Your task to perform on an android device: Turn on the flashlight Image 0: 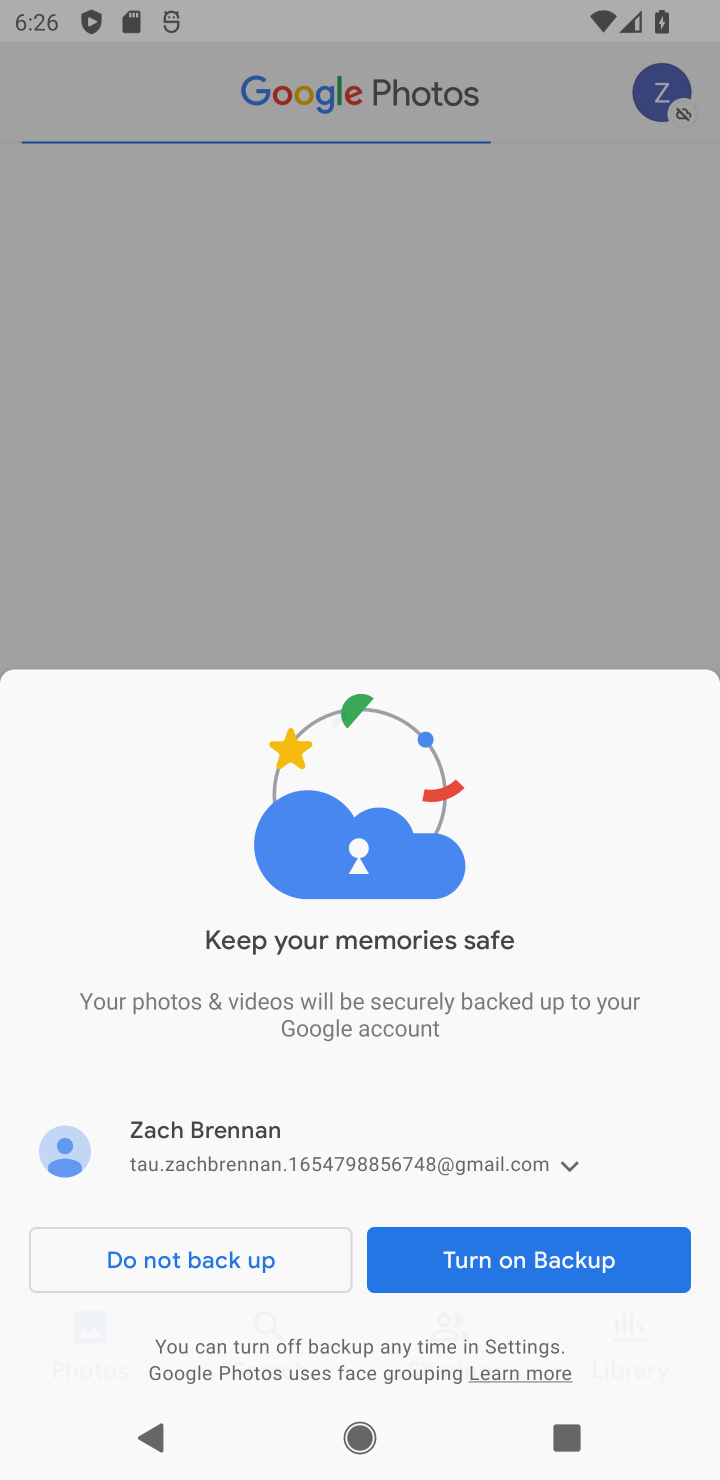
Step 0: press home button
Your task to perform on an android device: Turn on the flashlight Image 1: 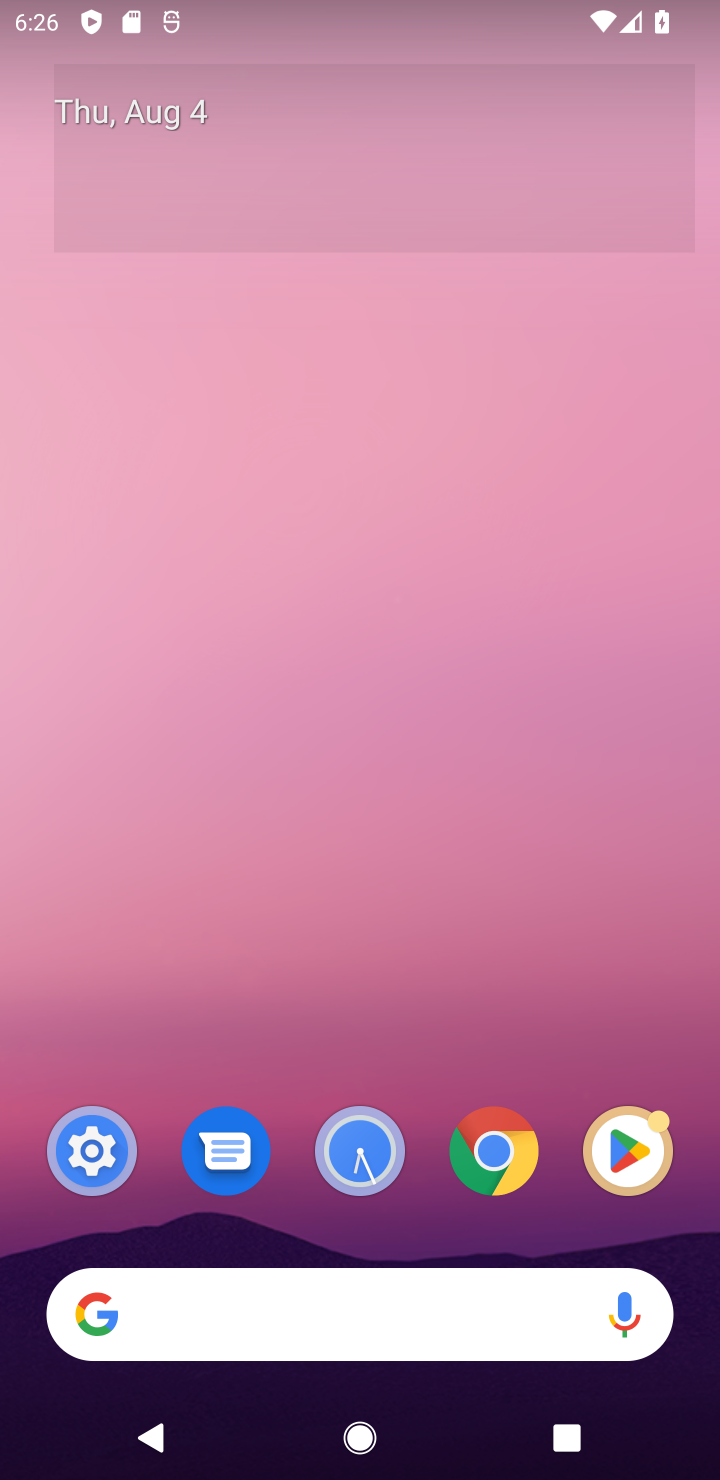
Step 1: drag from (327, 802) to (287, 26)
Your task to perform on an android device: Turn on the flashlight Image 2: 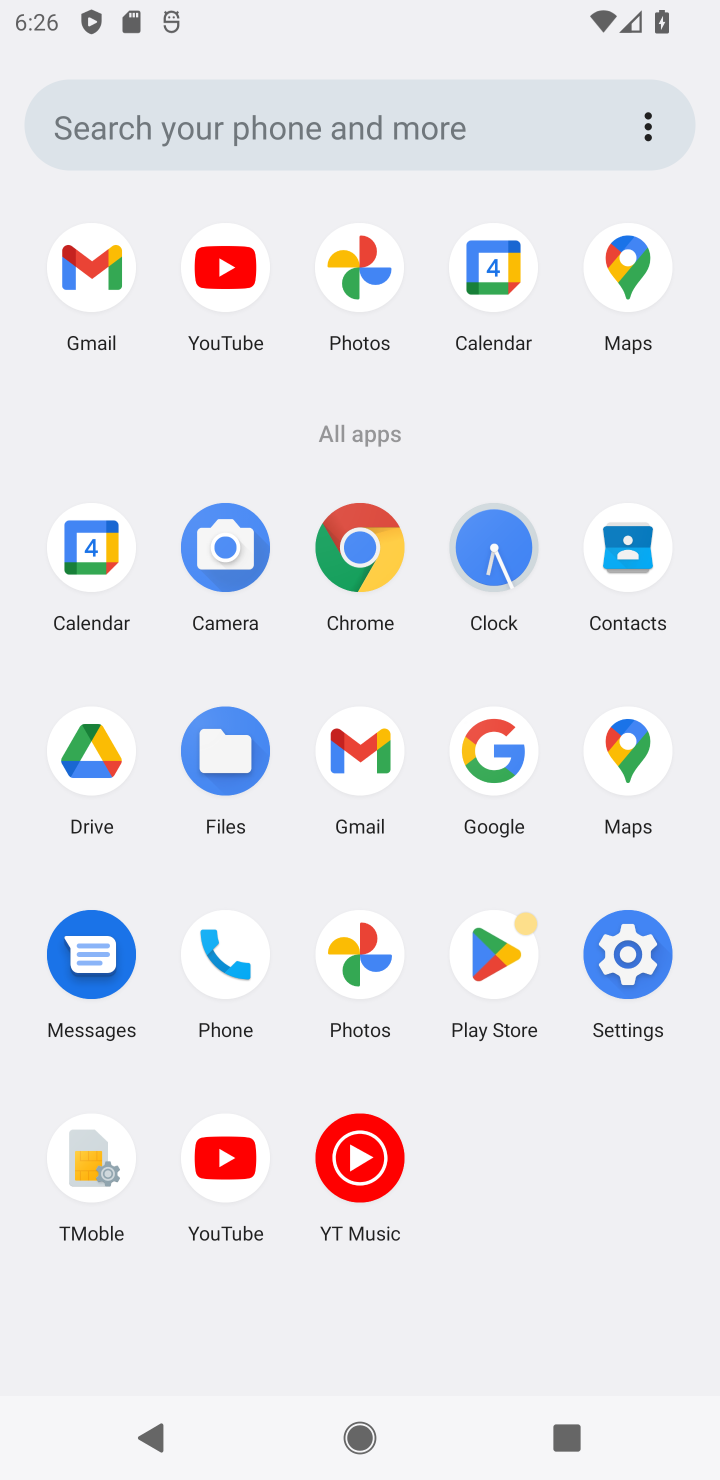
Step 2: click (610, 963)
Your task to perform on an android device: Turn on the flashlight Image 3: 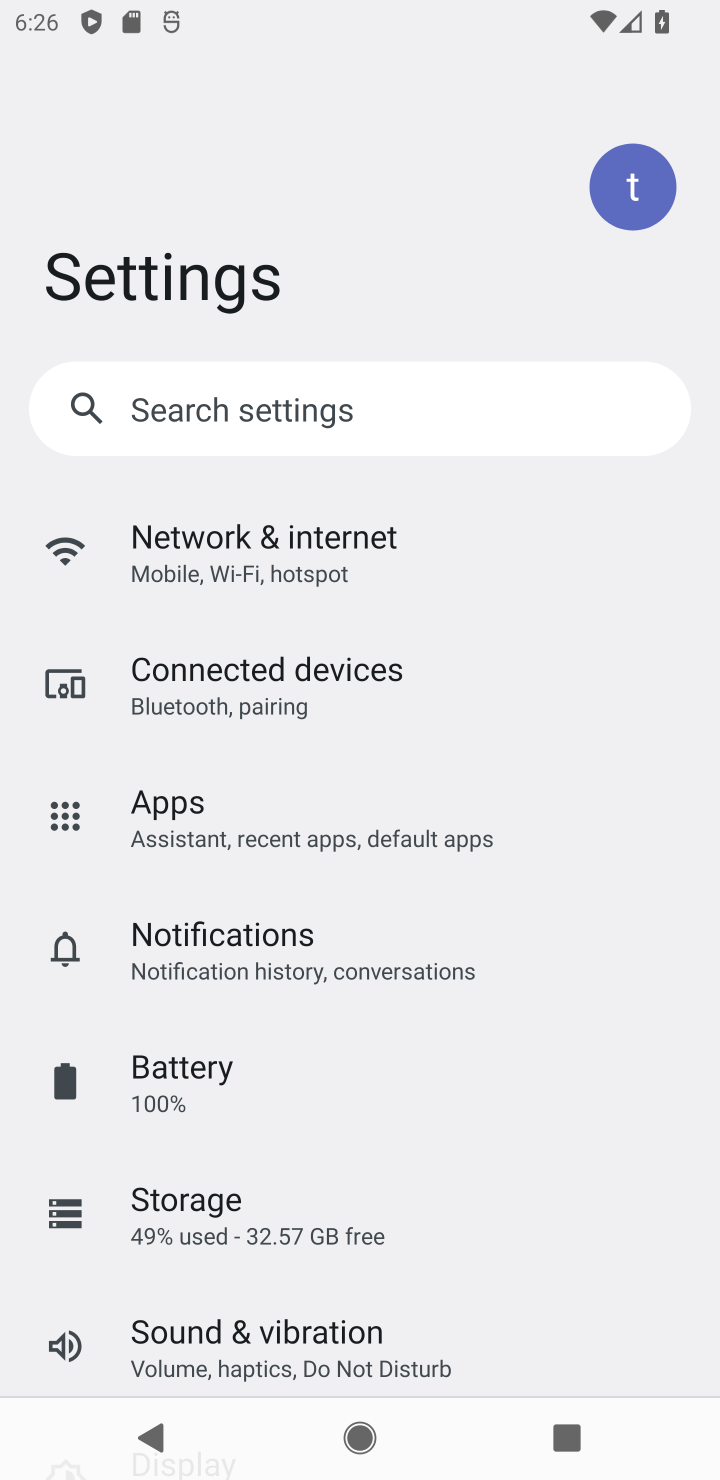
Step 3: click (324, 406)
Your task to perform on an android device: Turn on the flashlight Image 4: 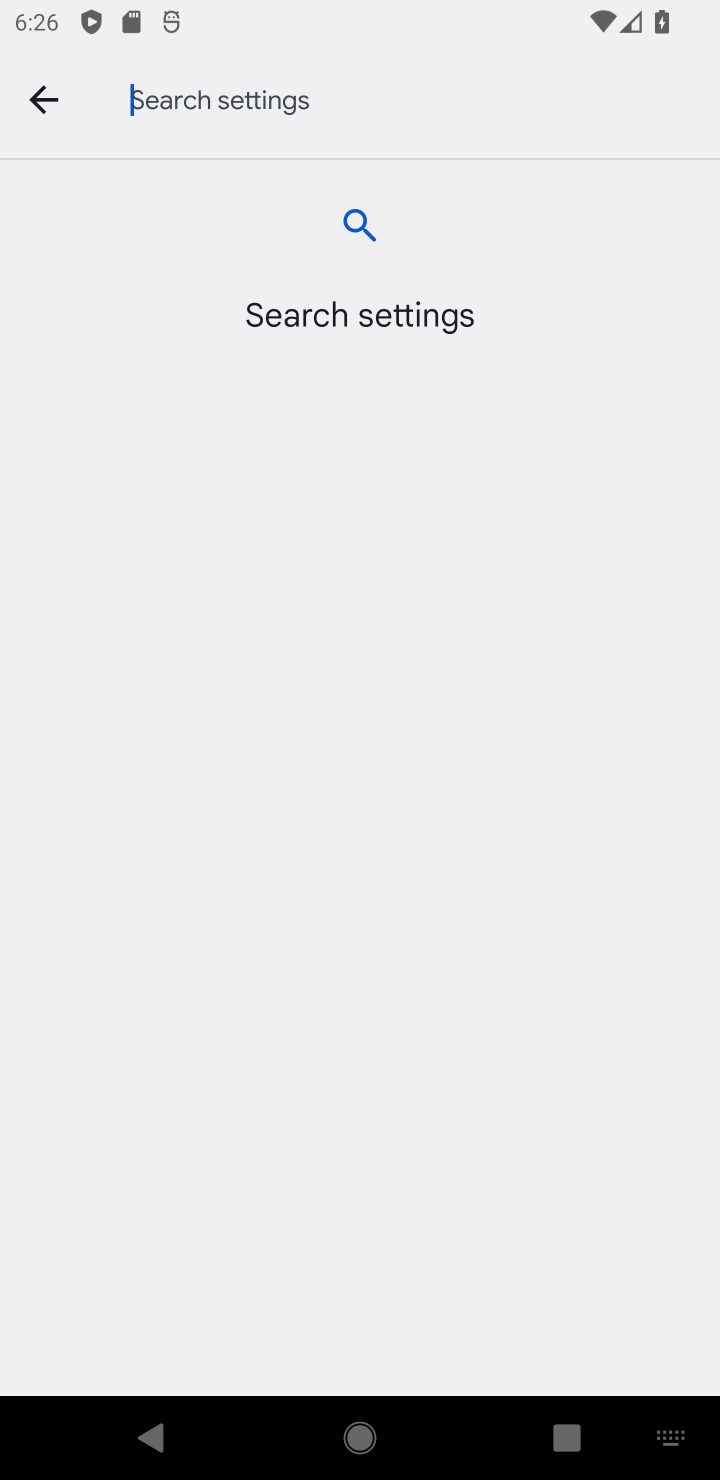
Step 4: type "flashlight"
Your task to perform on an android device: Turn on the flashlight Image 5: 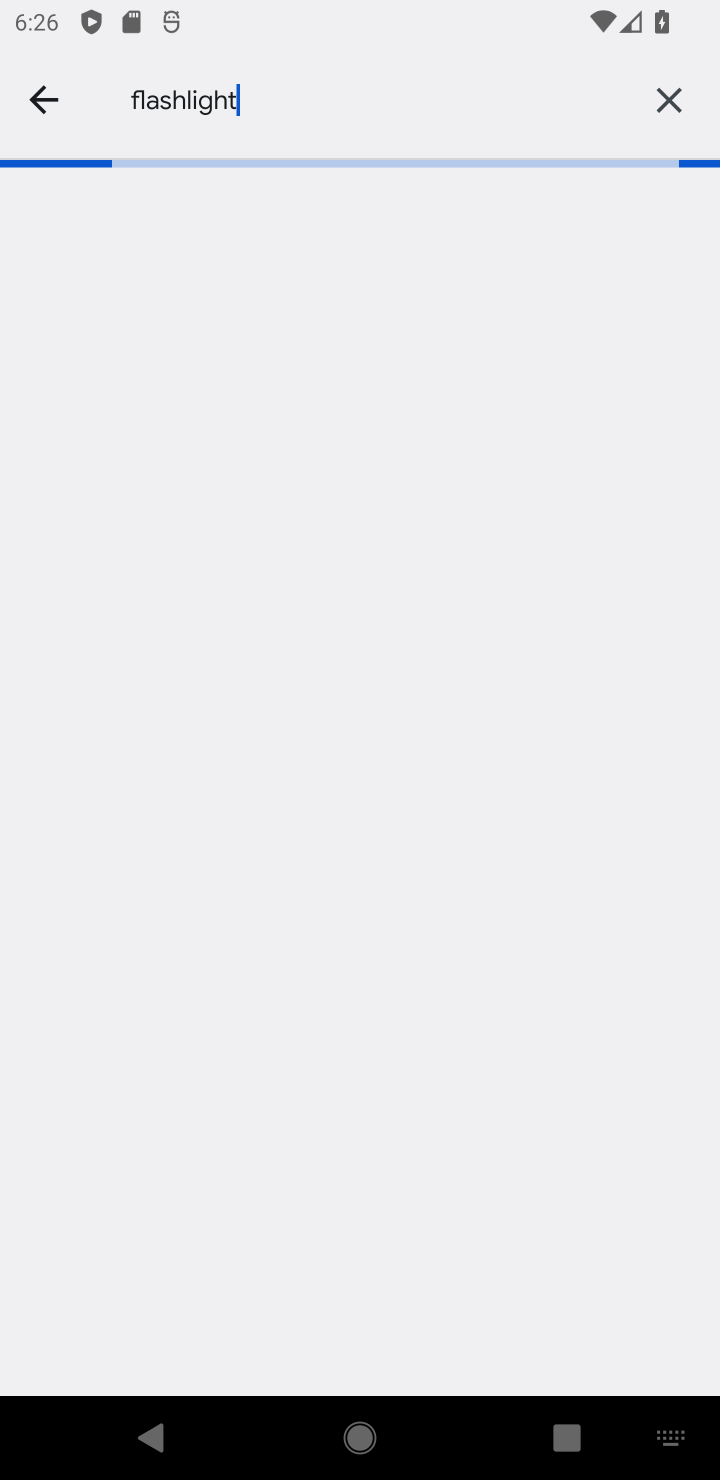
Step 5: click (460, 124)
Your task to perform on an android device: Turn on the flashlight Image 6: 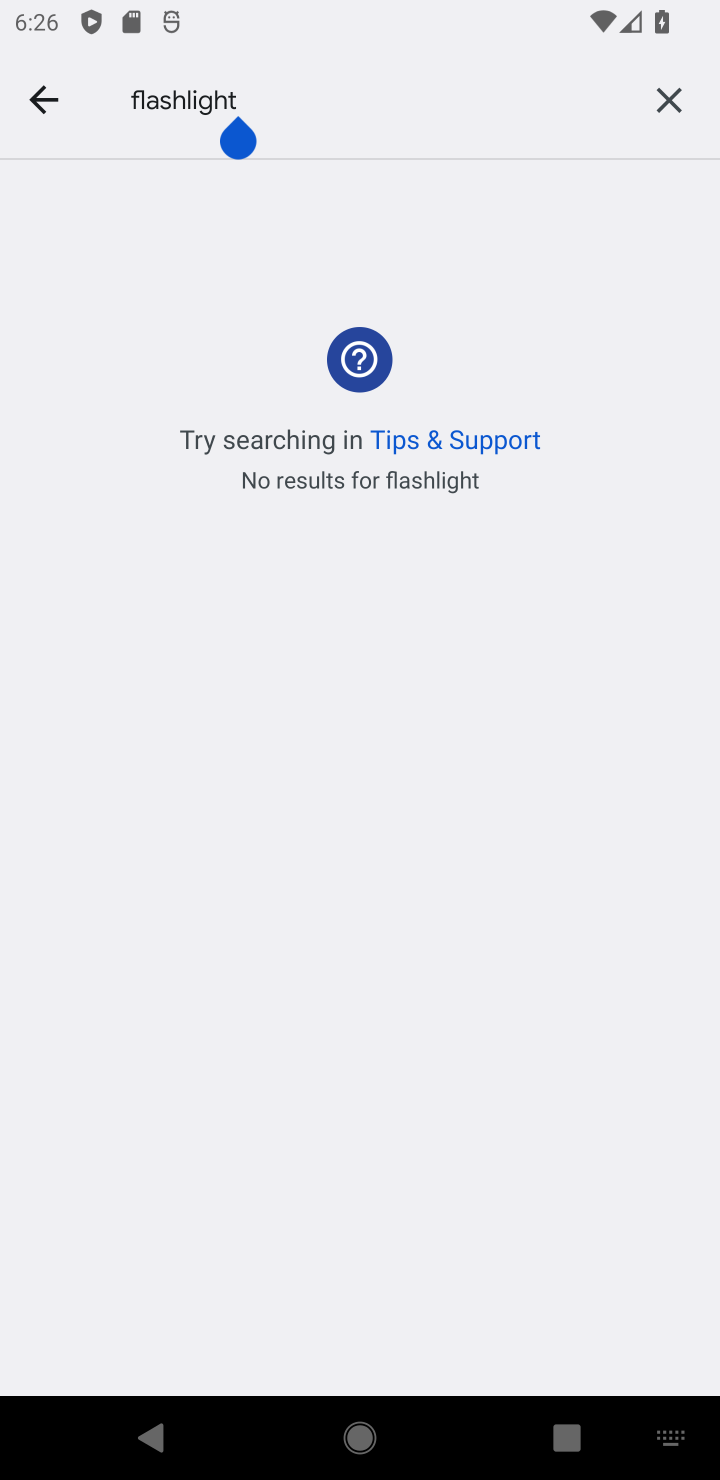
Step 6: click (221, 266)
Your task to perform on an android device: Turn on the flashlight Image 7: 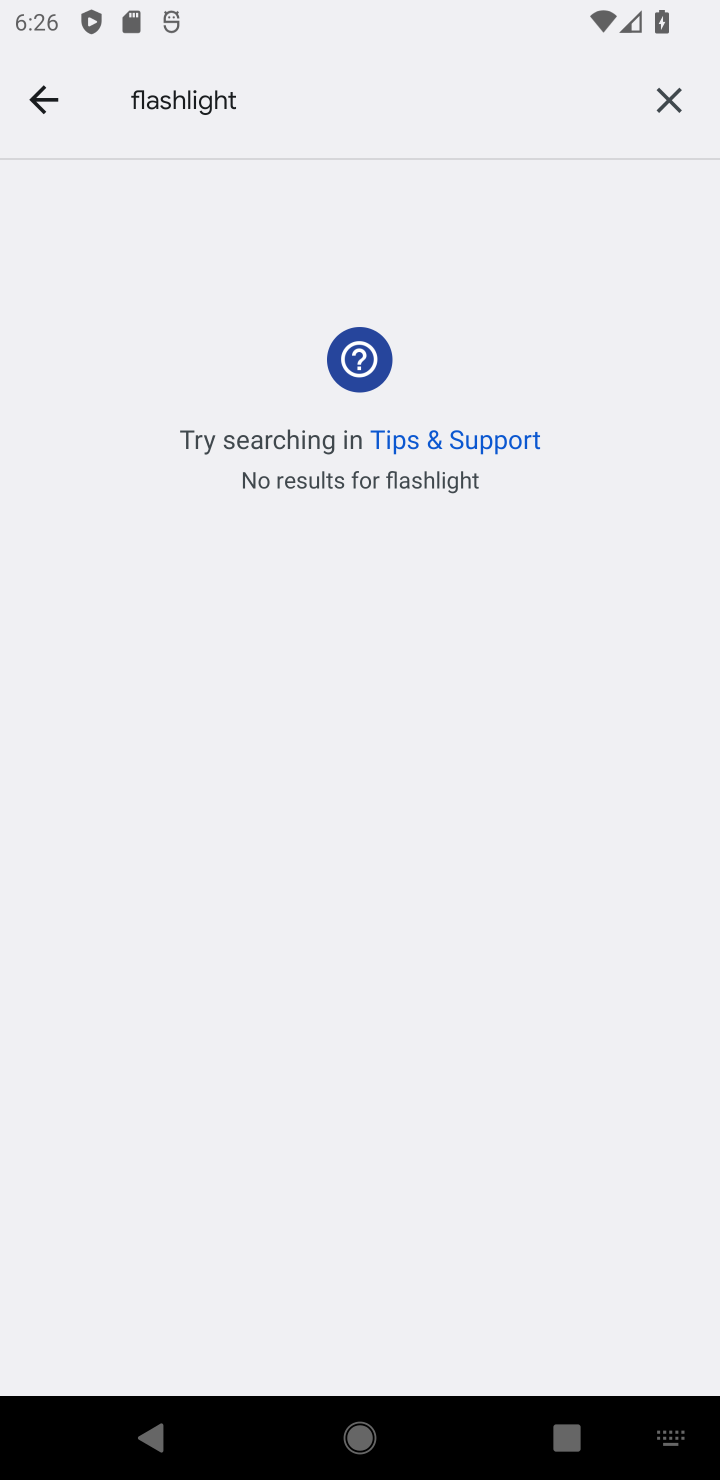
Step 7: click (416, 495)
Your task to perform on an android device: Turn on the flashlight Image 8: 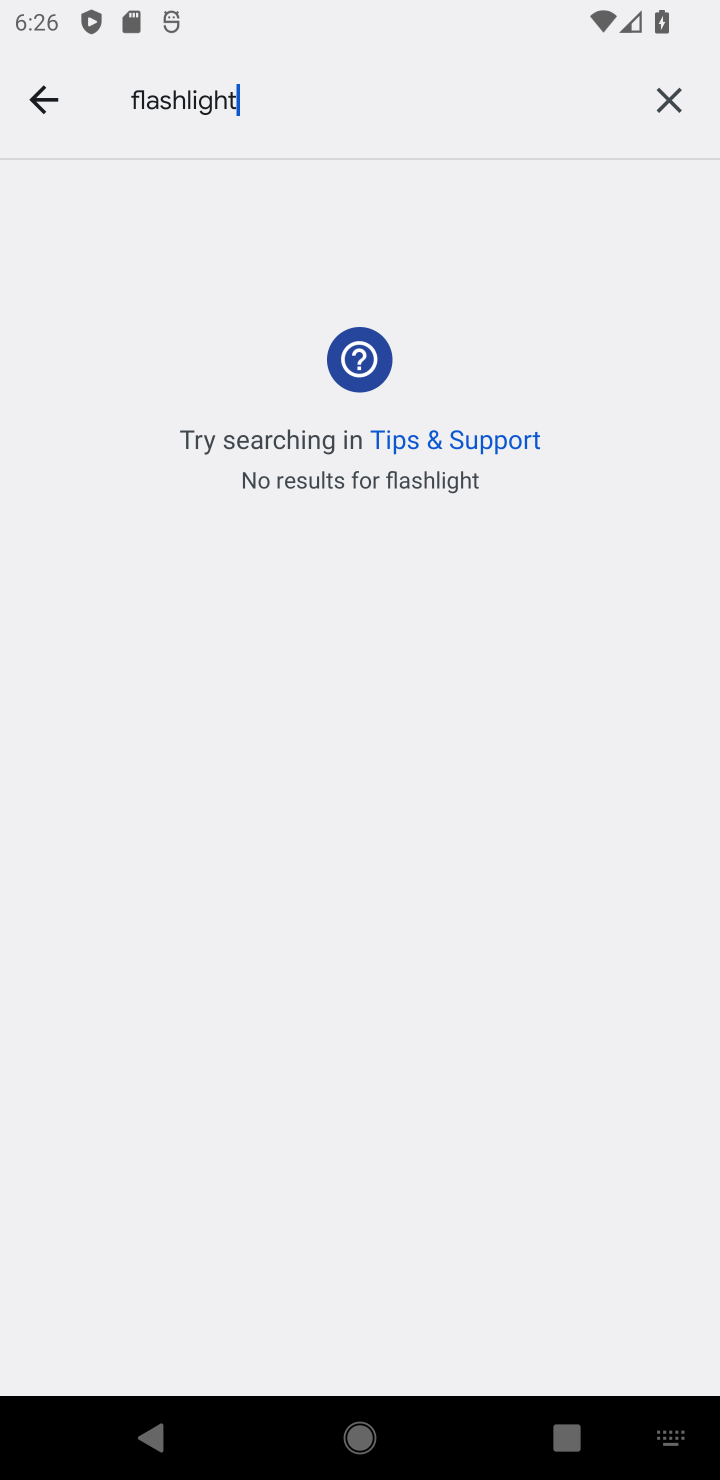
Step 8: task complete